Your task to perform on an android device: Open location settings Image 0: 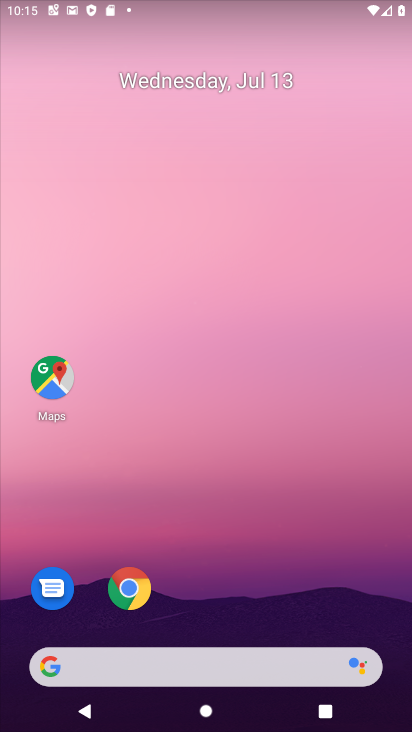
Step 0: drag from (211, 602) to (186, 107)
Your task to perform on an android device: Open location settings Image 1: 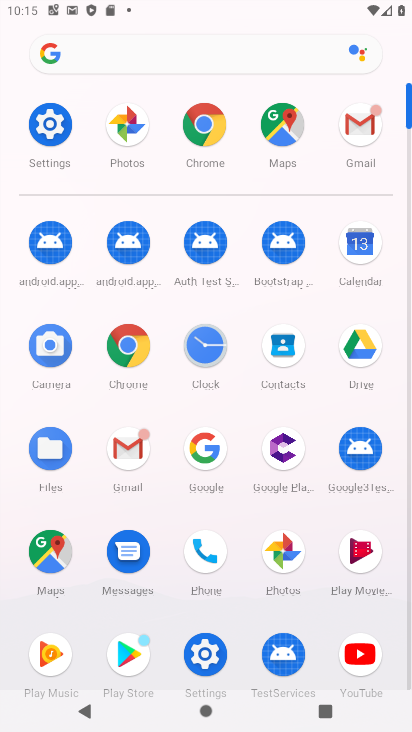
Step 1: click (31, 124)
Your task to perform on an android device: Open location settings Image 2: 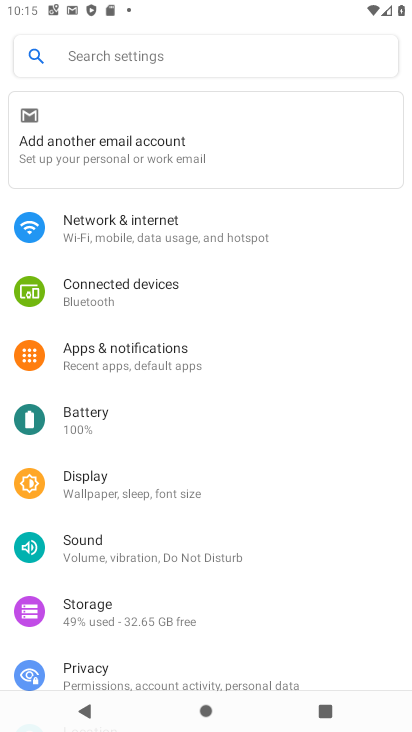
Step 2: drag from (136, 588) to (149, 256)
Your task to perform on an android device: Open location settings Image 3: 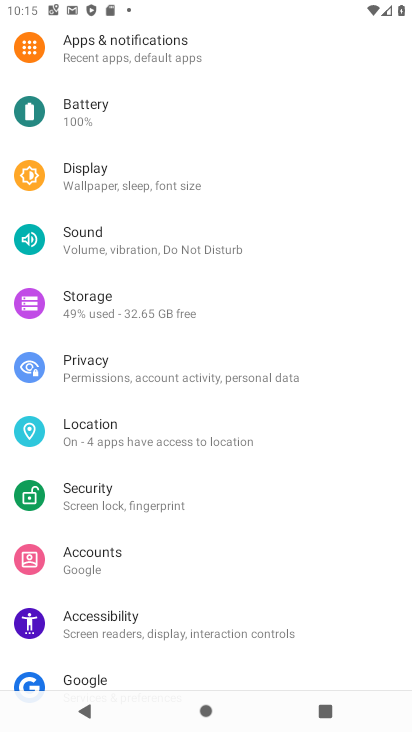
Step 3: click (121, 429)
Your task to perform on an android device: Open location settings Image 4: 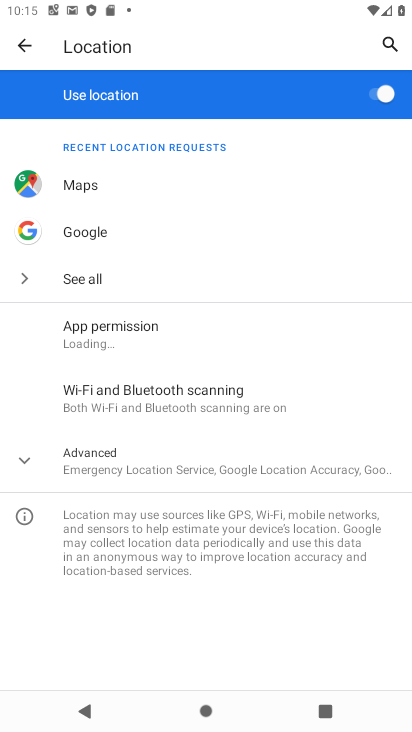
Step 4: click (121, 455)
Your task to perform on an android device: Open location settings Image 5: 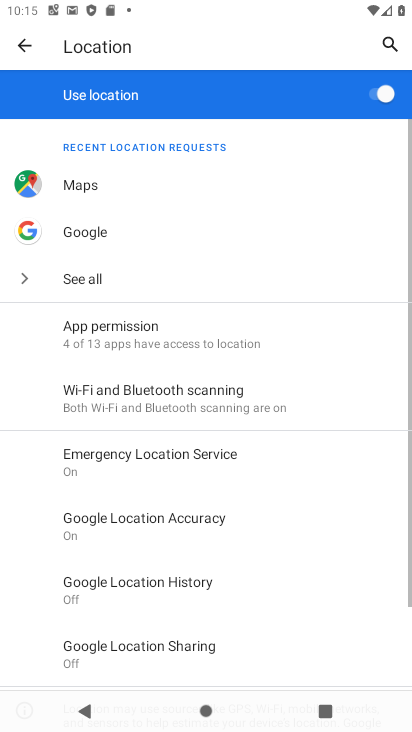
Step 5: task complete